Your task to perform on an android device: Do I have any events this weekend? Image 0: 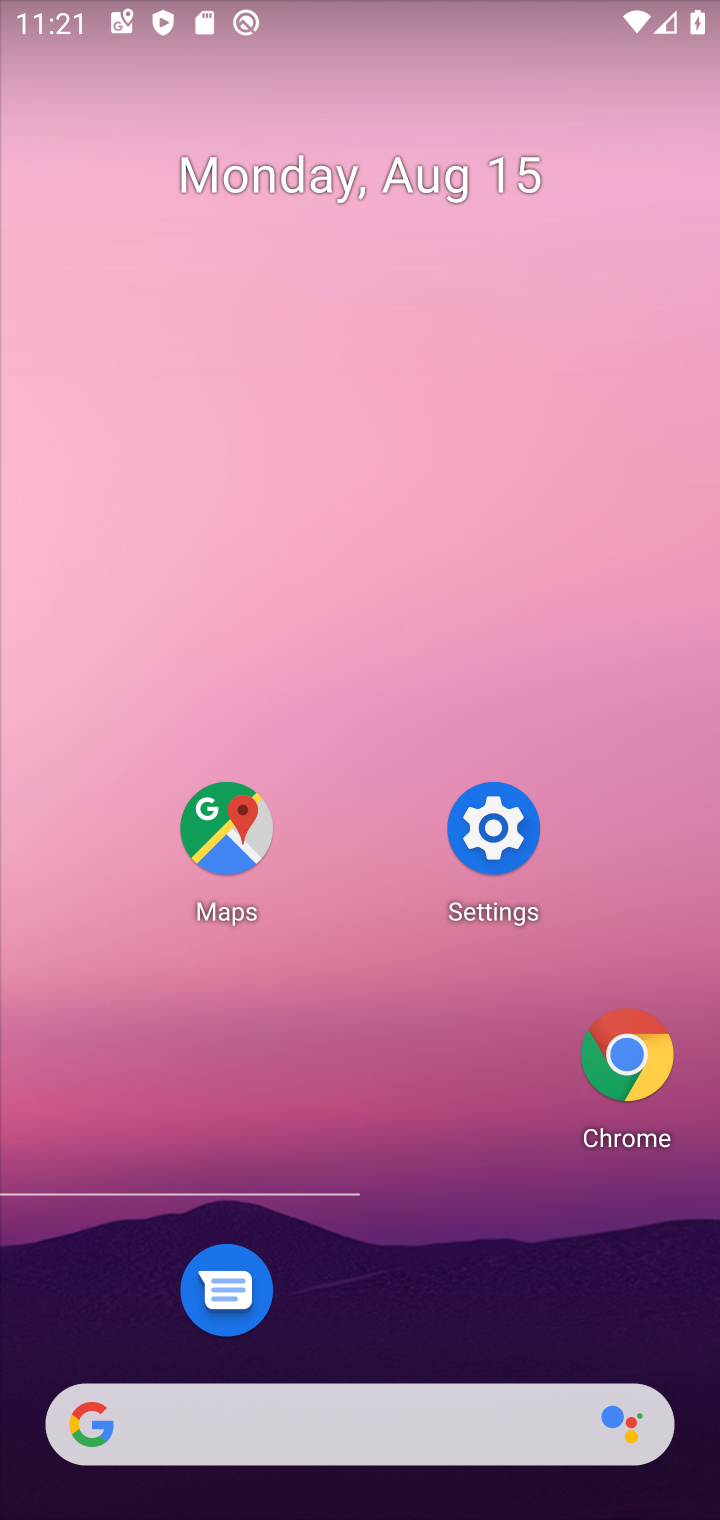
Step 0: drag from (386, 1345) to (568, 128)
Your task to perform on an android device: Do I have any events this weekend? Image 1: 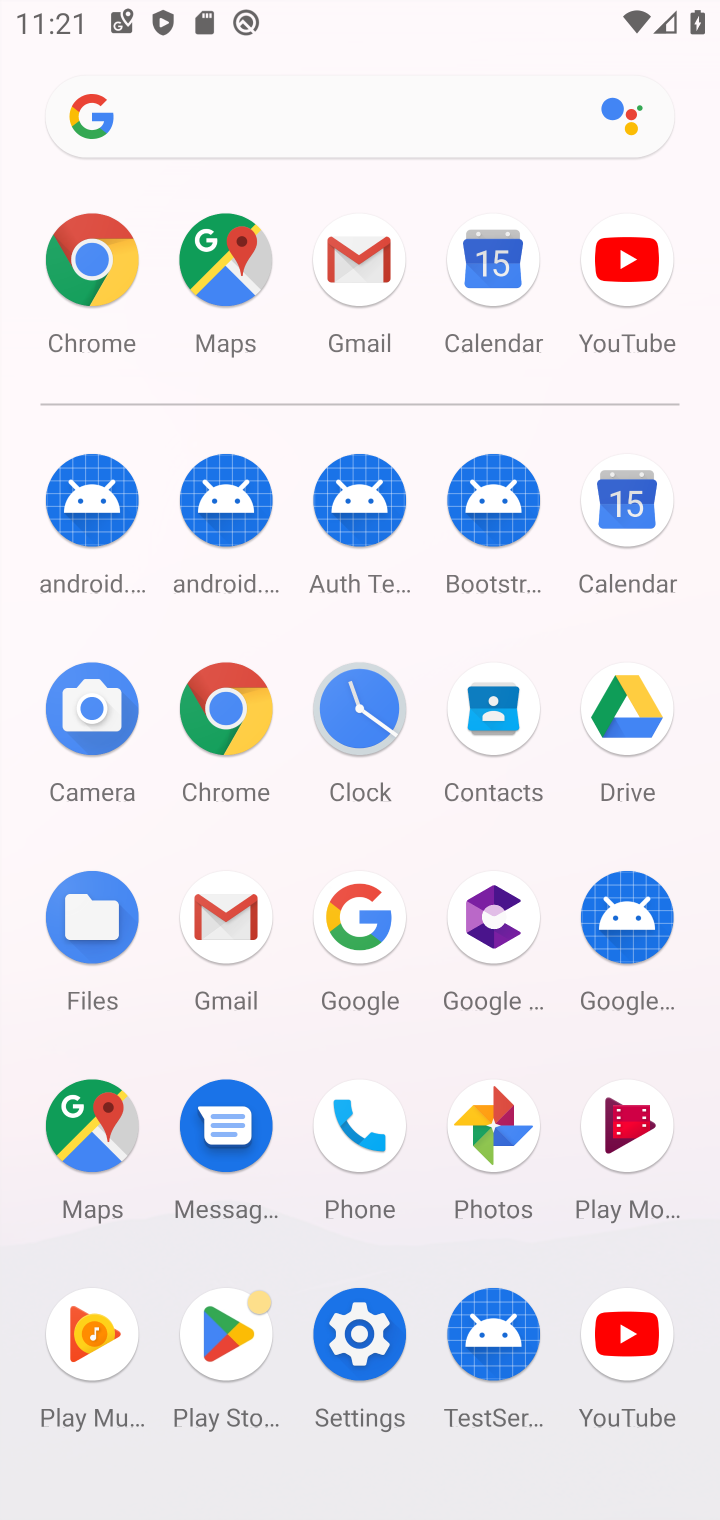
Step 1: click (623, 520)
Your task to perform on an android device: Do I have any events this weekend? Image 2: 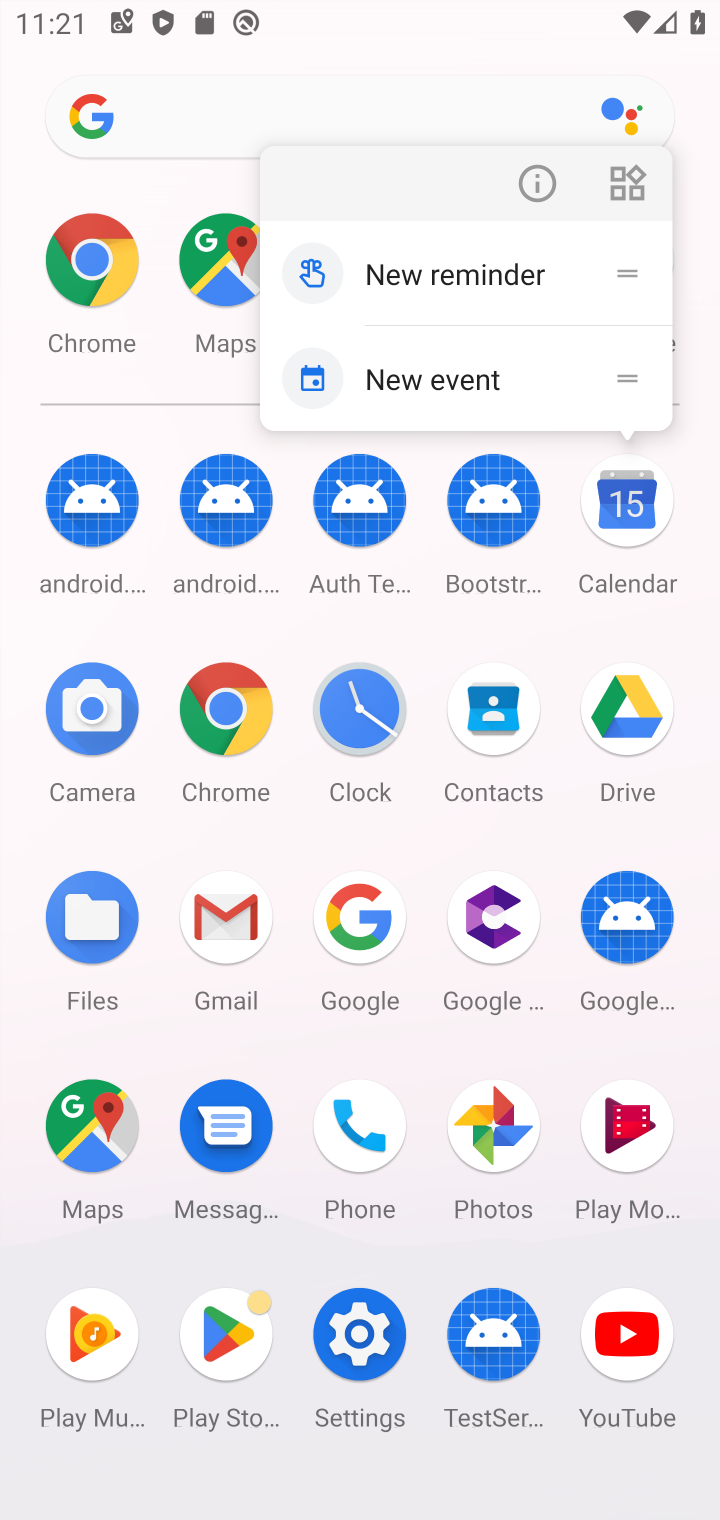
Step 2: click (623, 507)
Your task to perform on an android device: Do I have any events this weekend? Image 3: 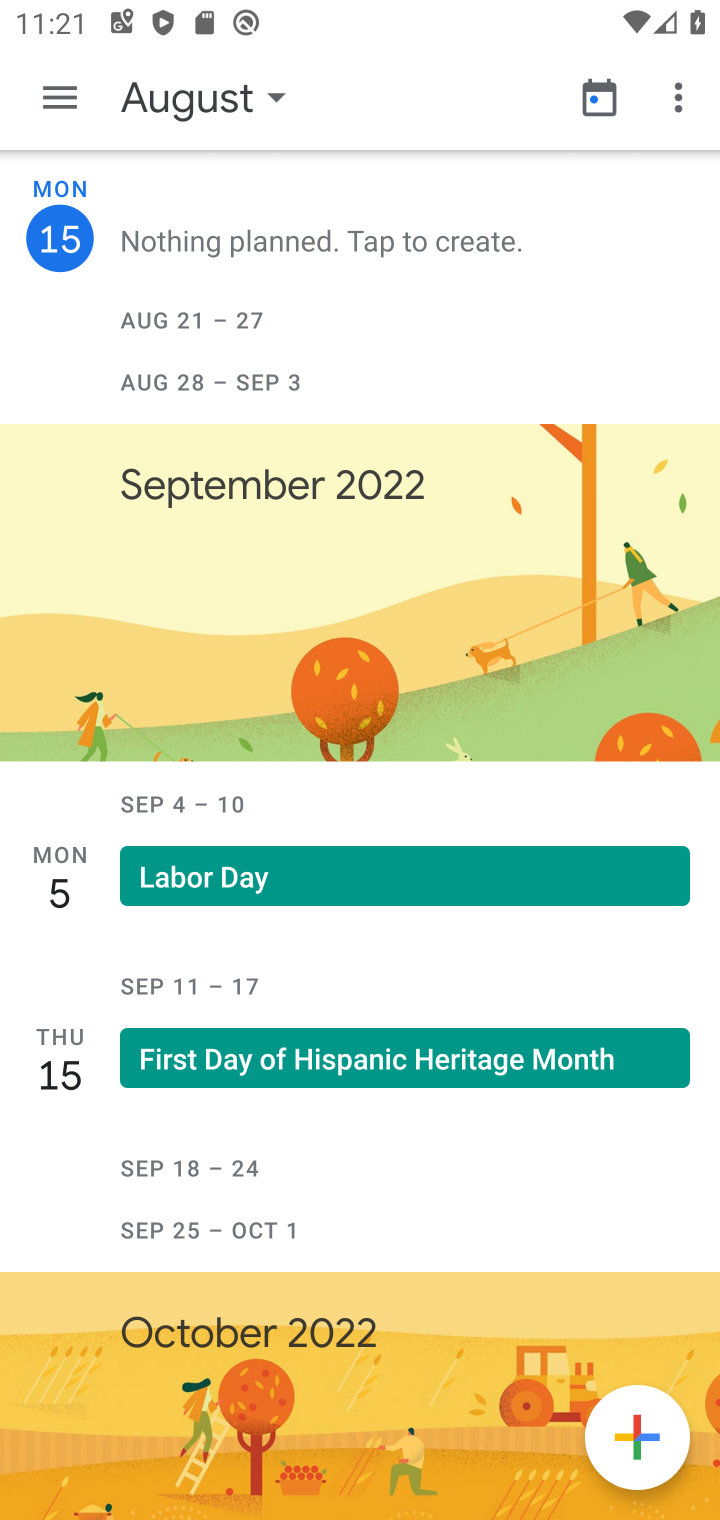
Step 3: click (169, 92)
Your task to perform on an android device: Do I have any events this weekend? Image 4: 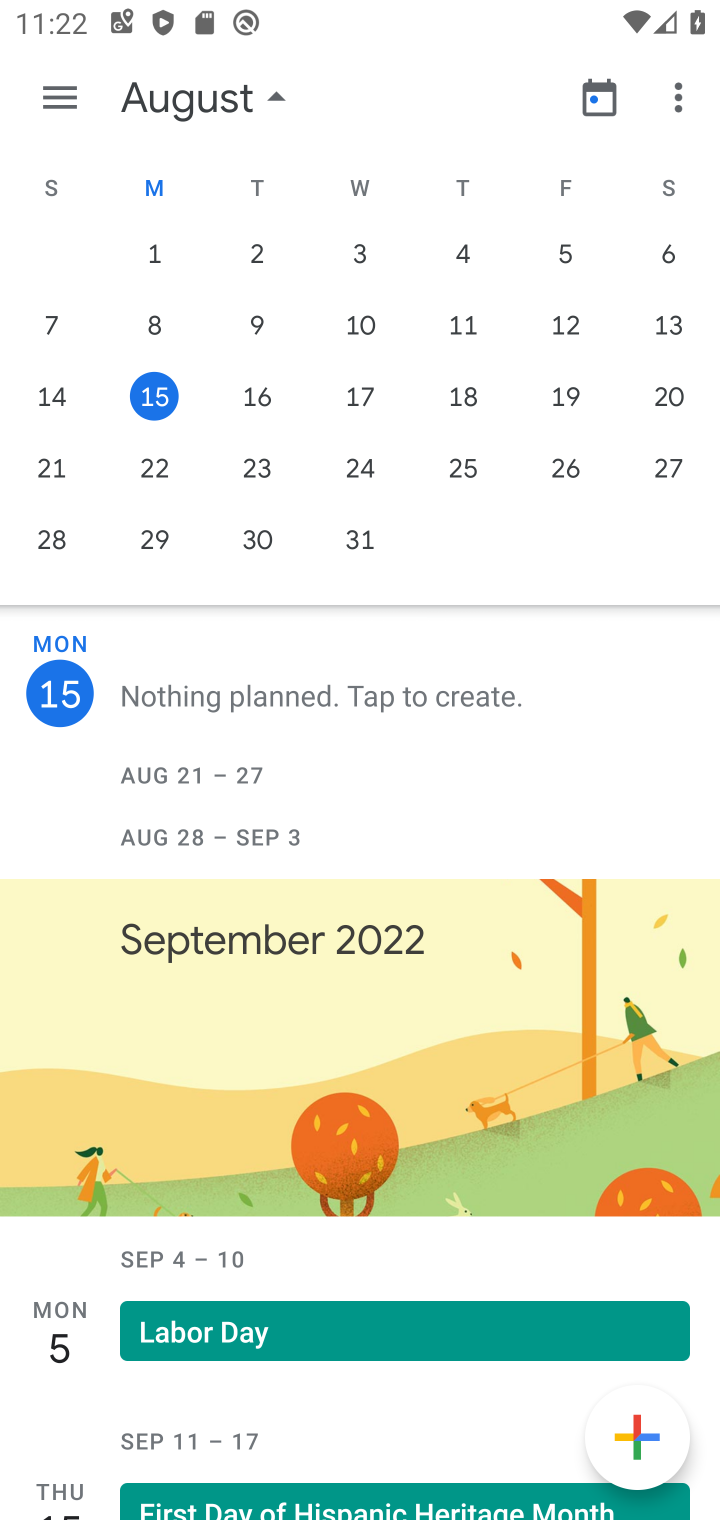
Step 4: click (676, 394)
Your task to perform on an android device: Do I have any events this weekend? Image 5: 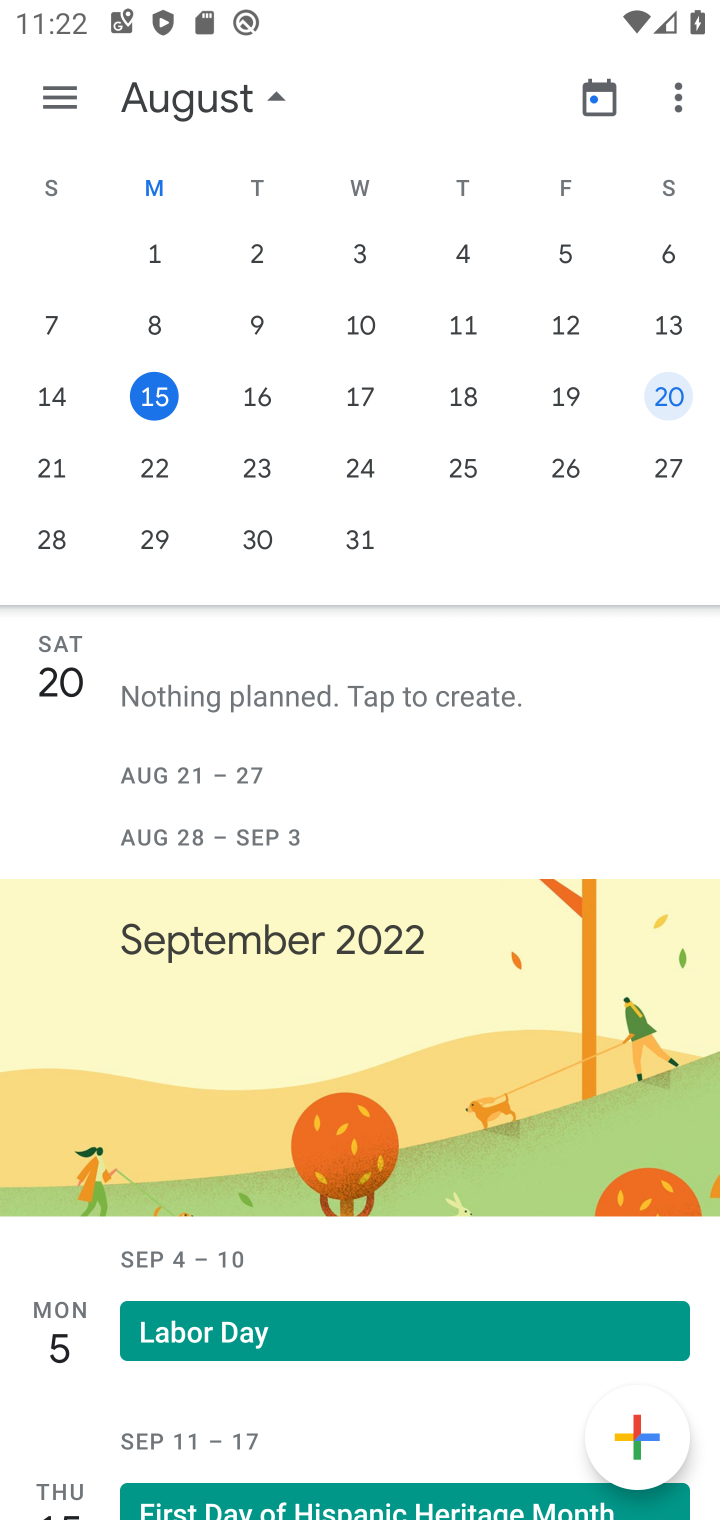
Step 5: click (62, 92)
Your task to perform on an android device: Do I have any events this weekend? Image 6: 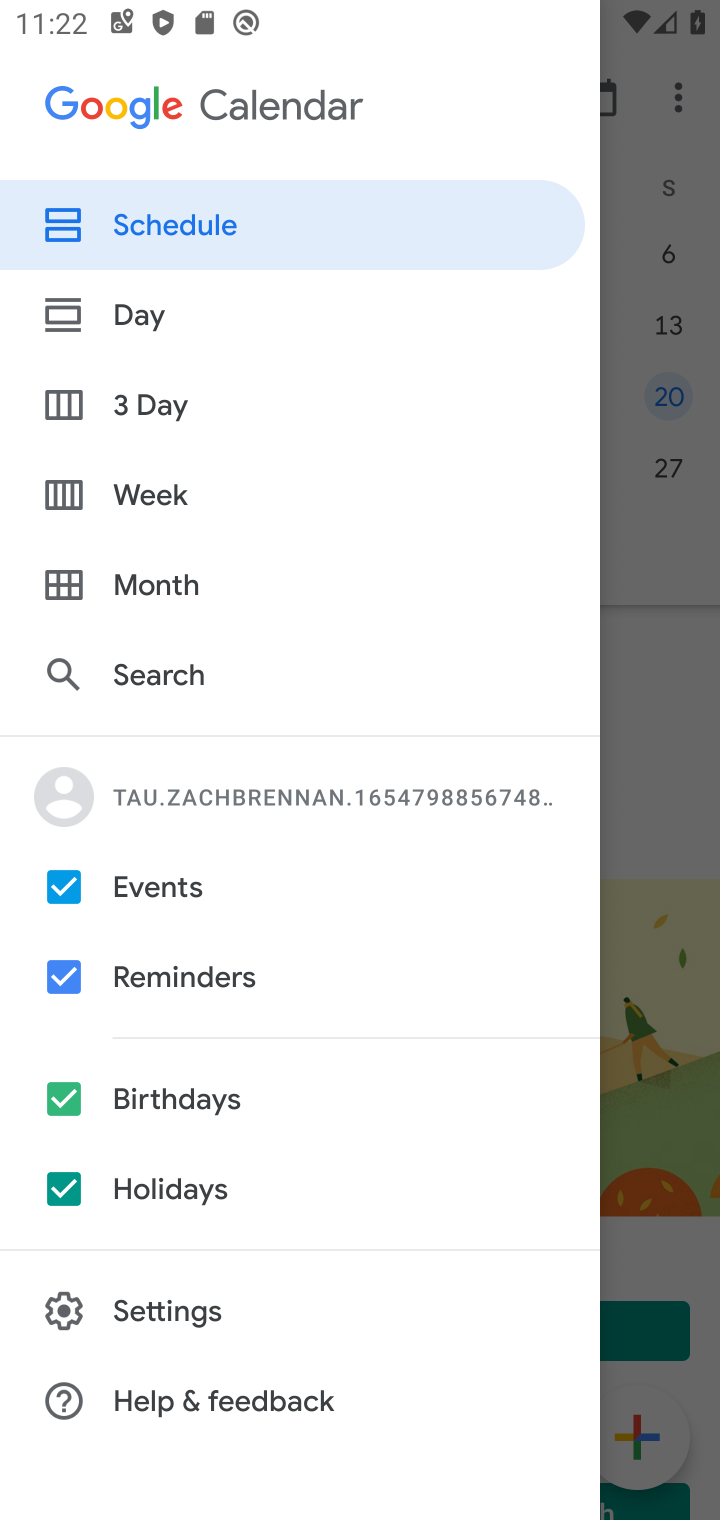
Step 6: click (125, 312)
Your task to perform on an android device: Do I have any events this weekend? Image 7: 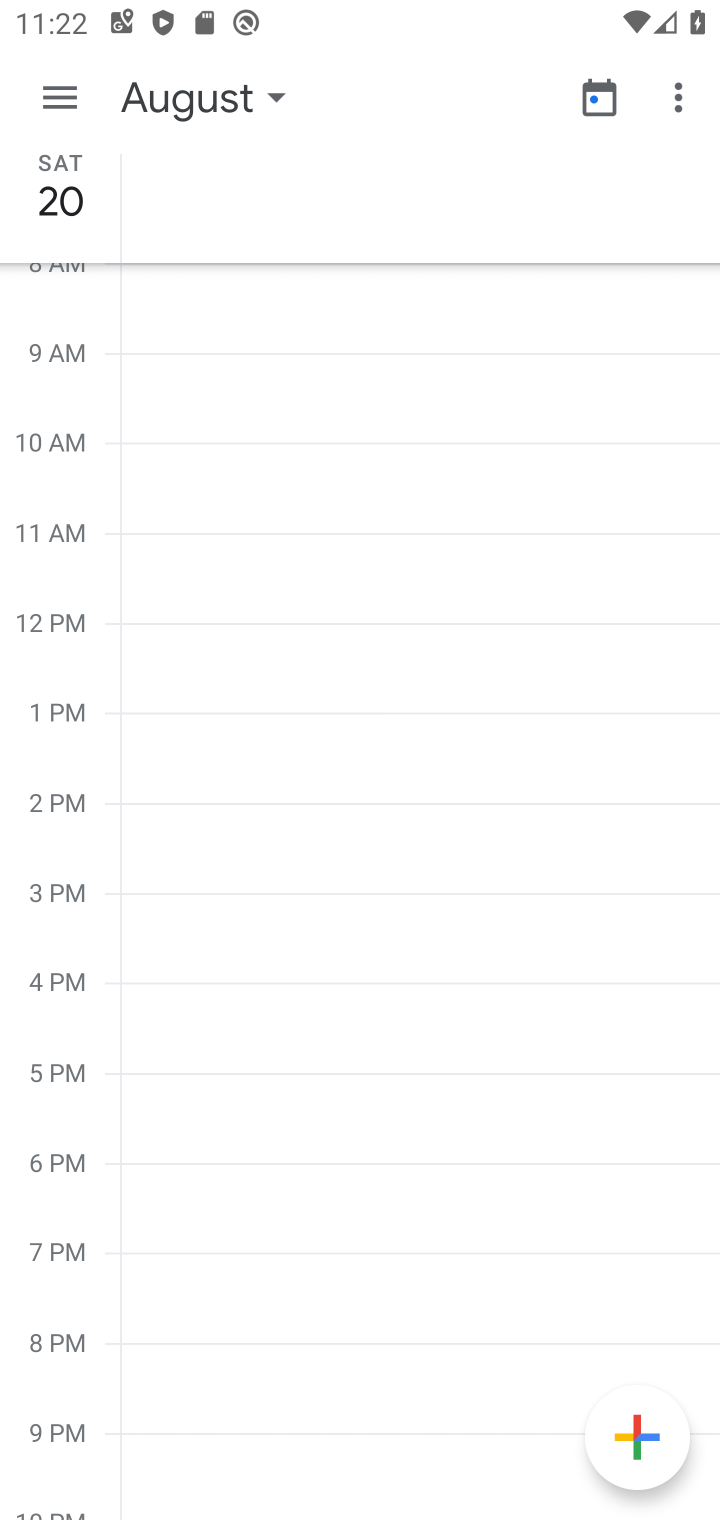
Step 7: click (60, 92)
Your task to perform on an android device: Do I have any events this weekend? Image 8: 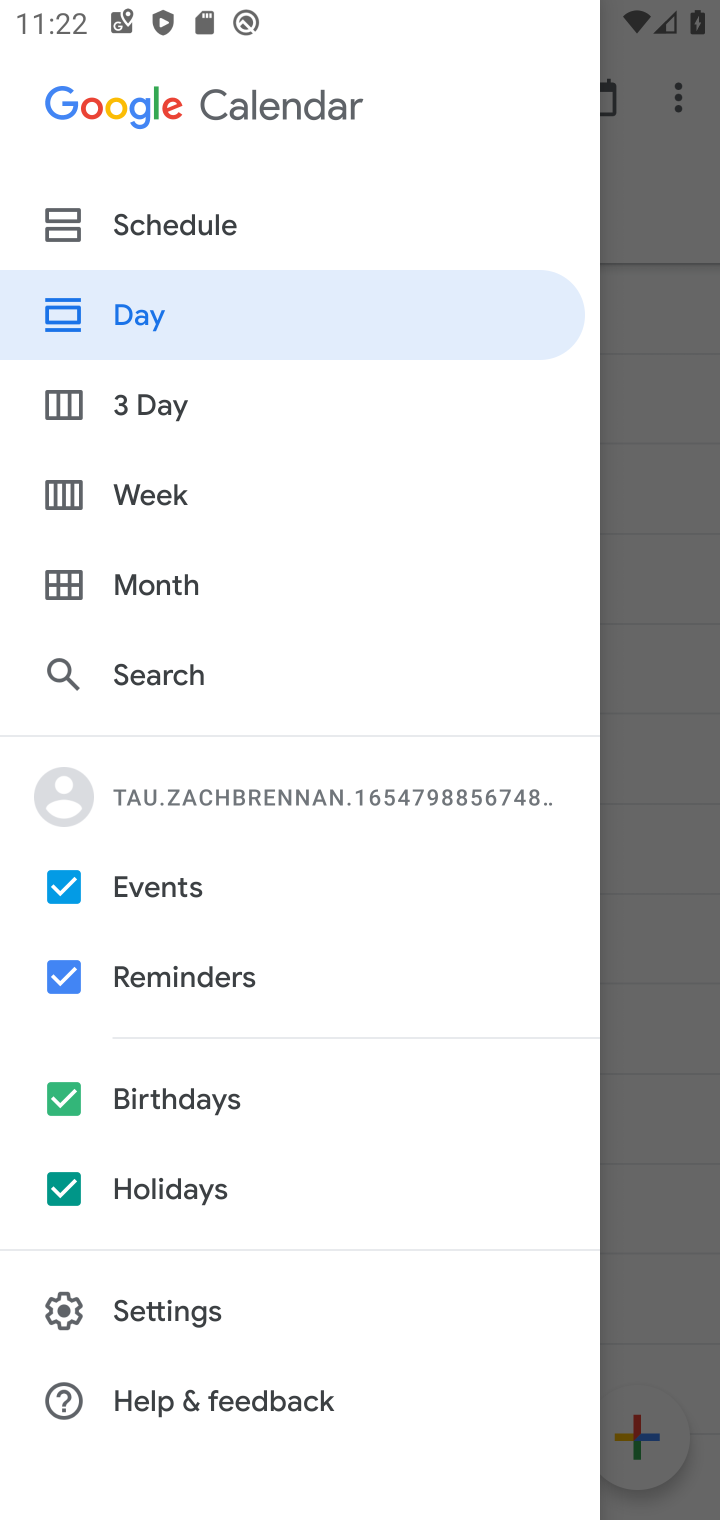
Step 8: click (153, 219)
Your task to perform on an android device: Do I have any events this weekend? Image 9: 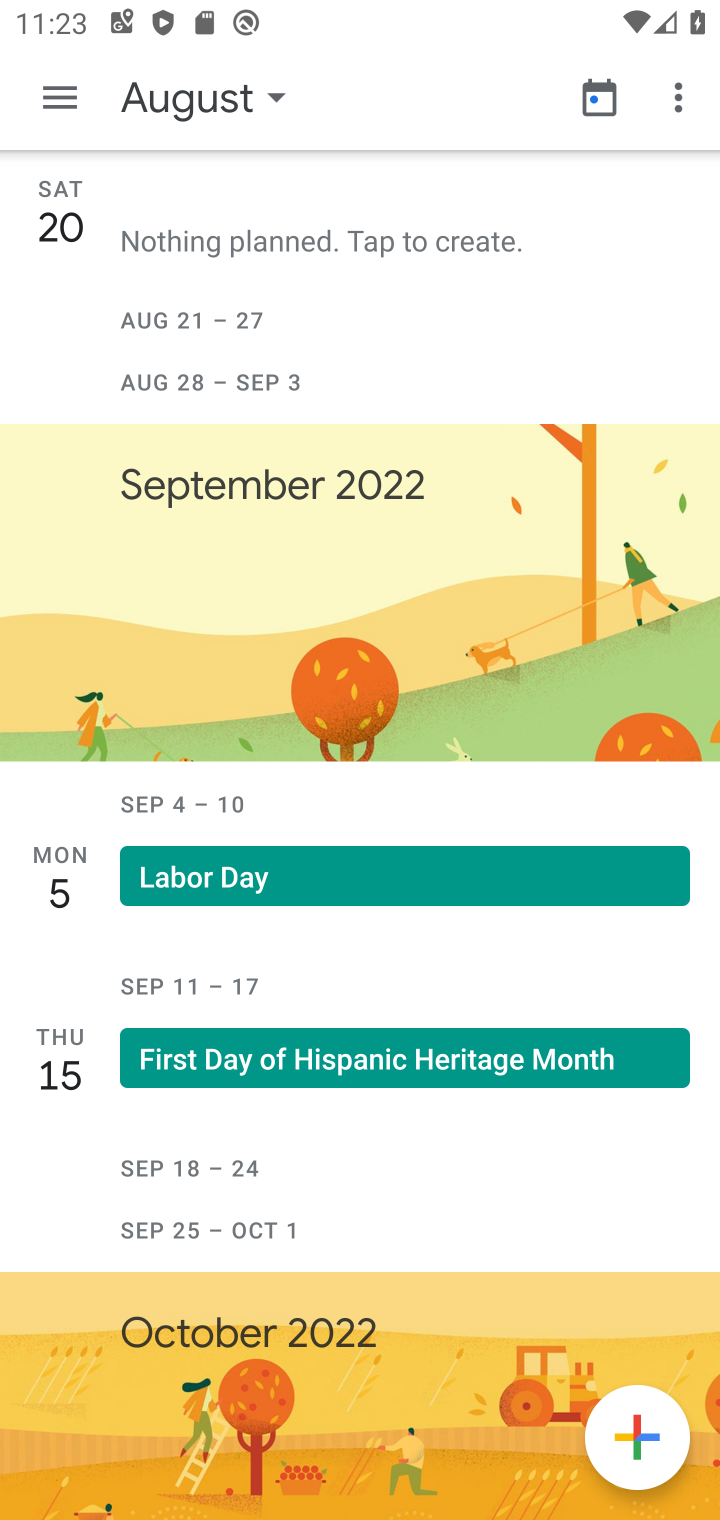
Step 9: task complete